Your task to perform on an android device: open device folders in google photos Image 0: 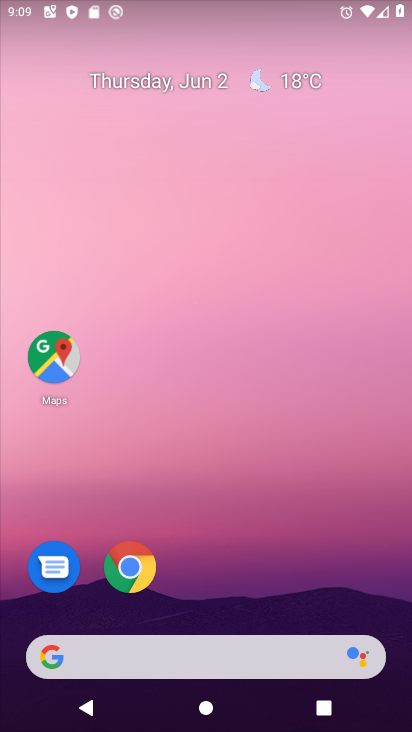
Step 0: drag from (201, 606) to (298, 3)
Your task to perform on an android device: open device folders in google photos Image 1: 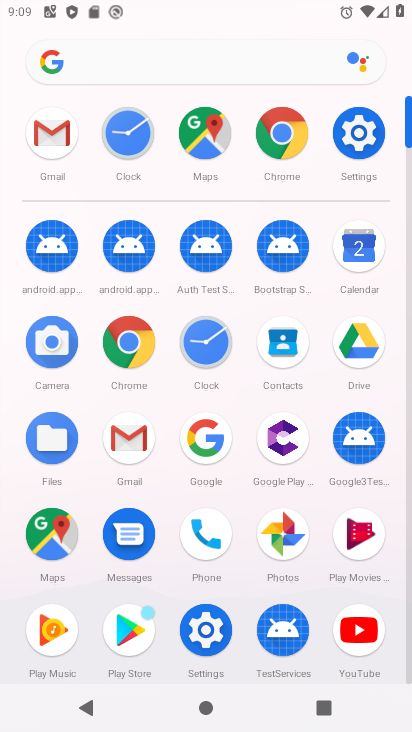
Step 1: click (291, 542)
Your task to perform on an android device: open device folders in google photos Image 2: 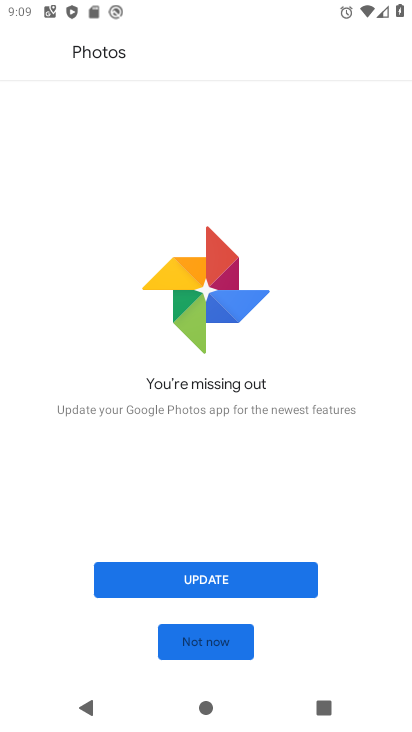
Step 2: click (277, 541)
Your task to perform on an android device: open device folders in google photos Image 3: 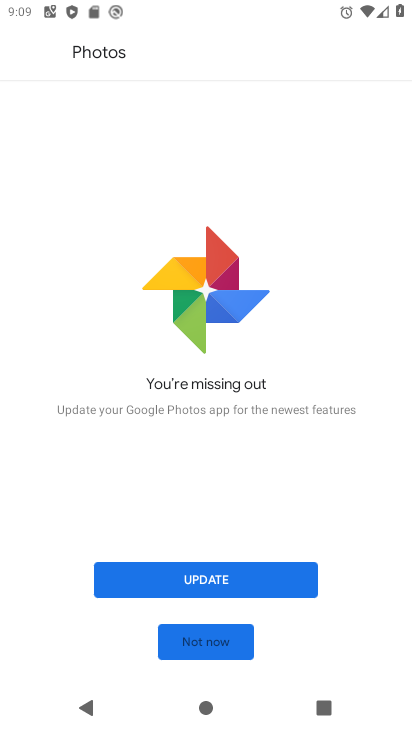
Step 3: click (216, 648)
Your task to perform on an android device: open device folders in google photos Image 4: 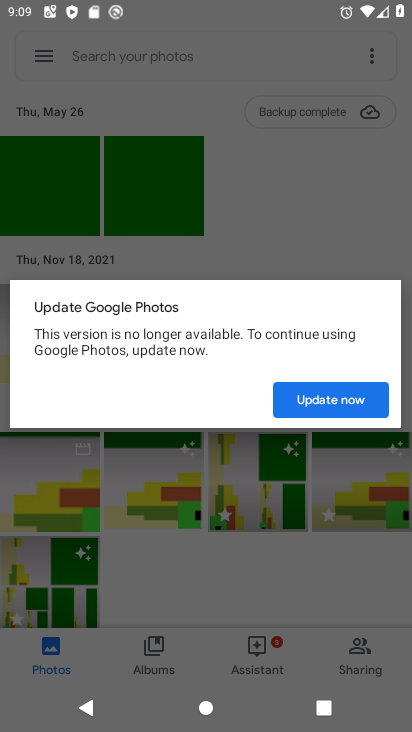
Step 4: click (326, 404)
Your task to perform on an android device: open device folders in google photos Image 5: 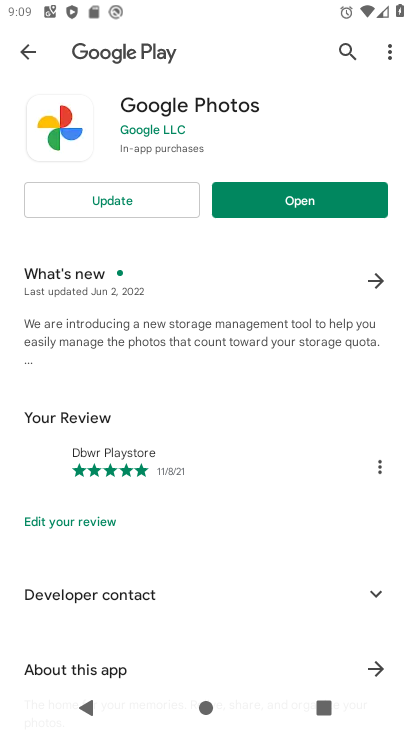
Step 5: click (323, 202)
Your task to perform on an android device: open device folders in google photos Image 6: 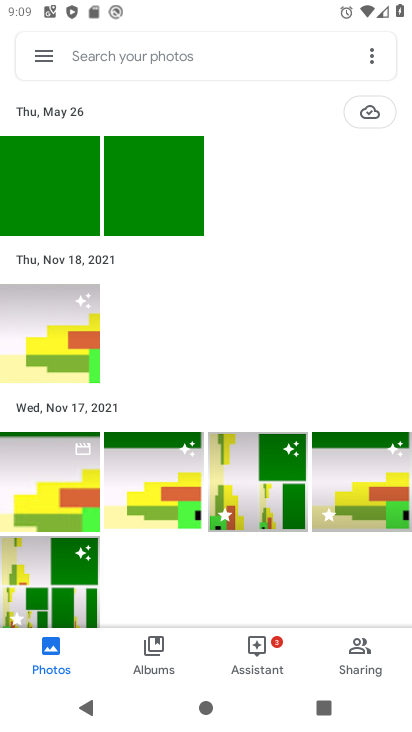
Step 6: click (43, 61)
Your task to perform on an android device: open device folders in google photos Image 7: 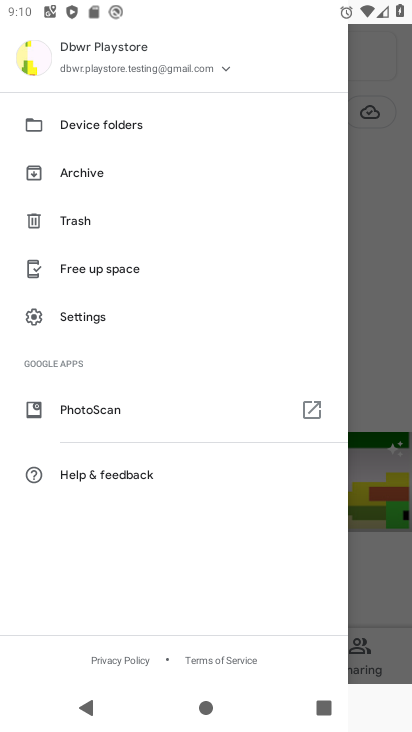
Step 7: click (114, 137)
Your task to perform on an android device: open device folders in google photos Image 8: 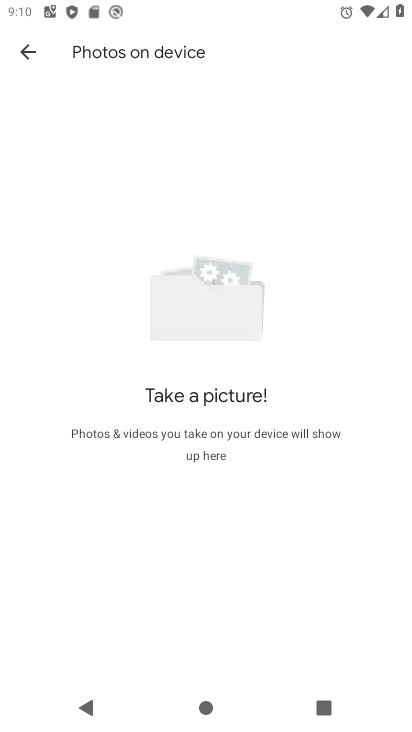
Step 8: task complete